Your task to perform on an android device: Open Google Maps Image 0: 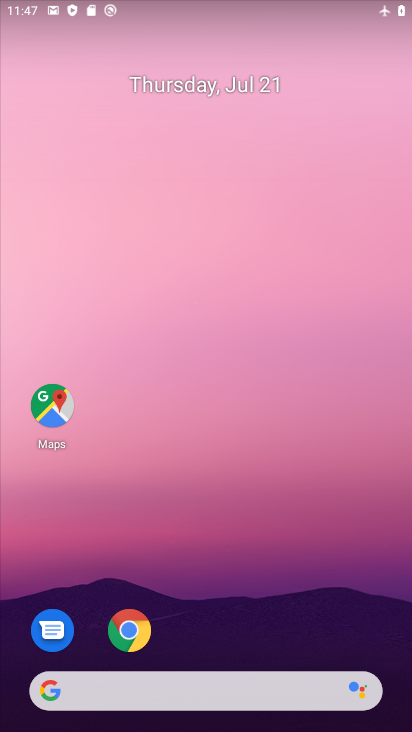
Step 0: press home button
Your task to perform on an android device: Open Google Maps Image 1: 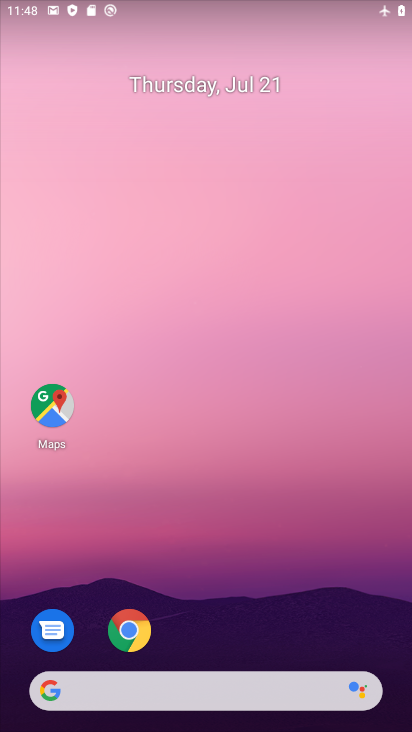
Step 1: click (24, 411)
Your task to perform on an android device: Open Google Maps Image 2: 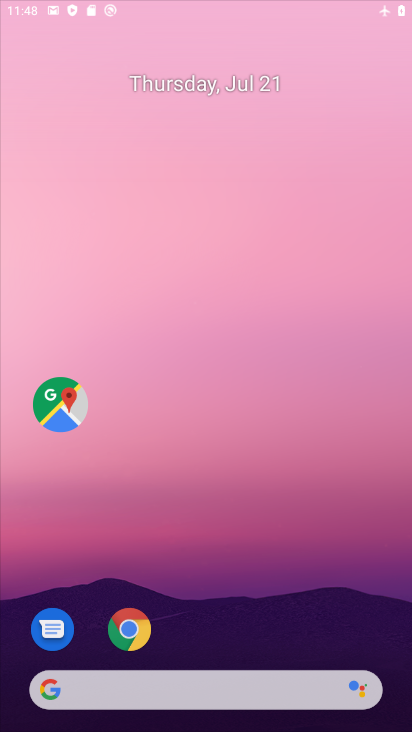
Step 2: click (41, 400)
Your task to perform on an android device: Open Google Maps Image 3: 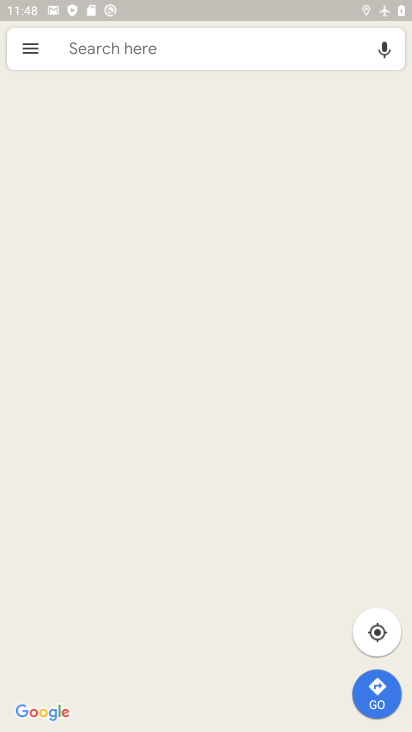
Step 3: task complete